Your task to perform on an android device: turn on improve location accuracy Image 0: 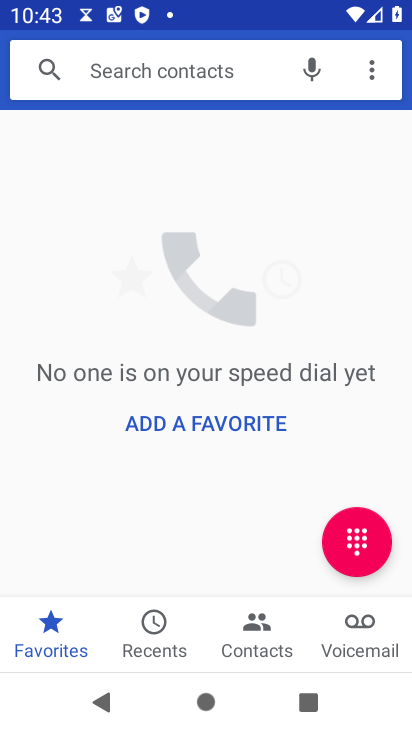
Step 0: press back button
Your task to perform on an android device: turn on improve location accuracy Image 1: 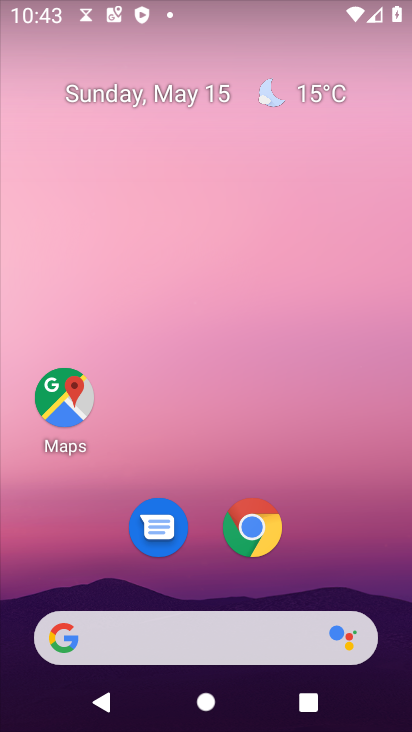
Step 1: drag from (328, 551) to (254, 55)
Your task to perform on an android device: turn on improve location accuracy Image 2: 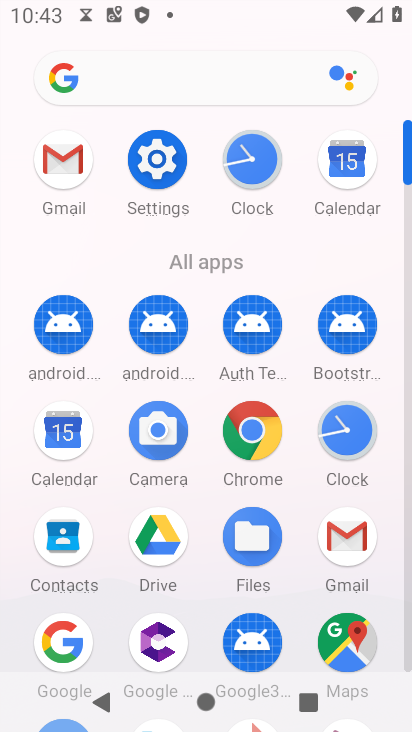
Step 2: click (159, 159)
Your task to perform on an android device: turn on improve location accuracy Image 3: 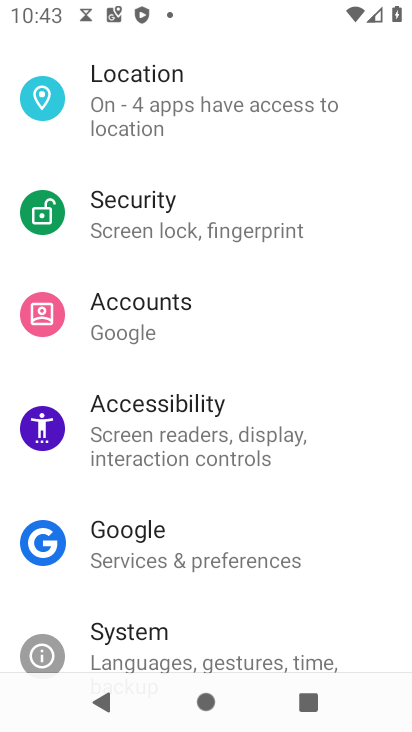
Step 3: drag from (230, 318) to (232, 461)
Your task to perform on an android device: turn on improve location accuracy Image 4: 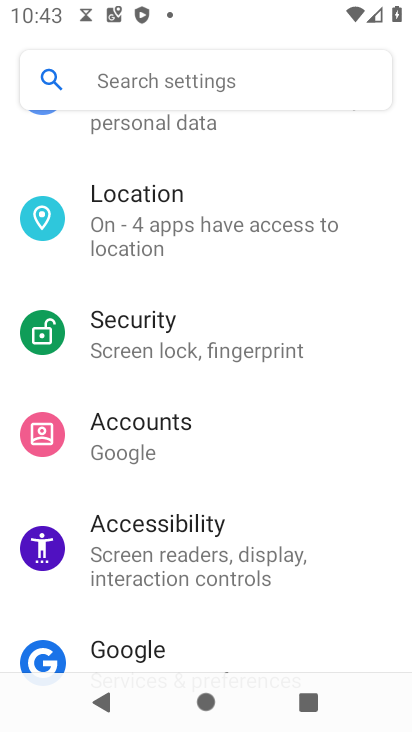
Step 4: click (201, 219)
Your task to perform on an android device: turn on improve location accuracy Image 5: 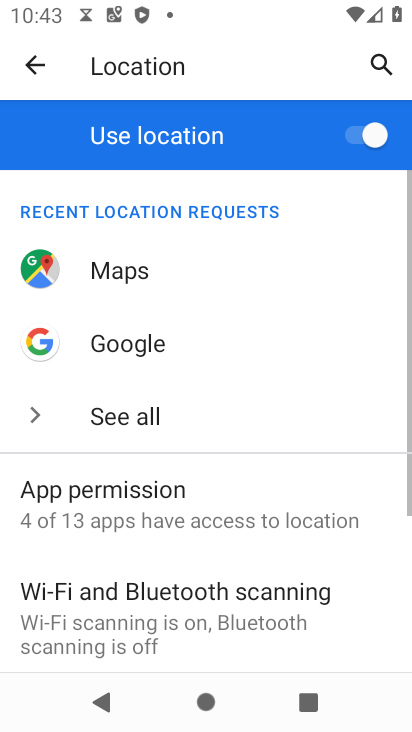
Step 5: drag from (201, 524) to (250, 360)
Your task to perform on an android device: turn on improve location accuracy Image 6: 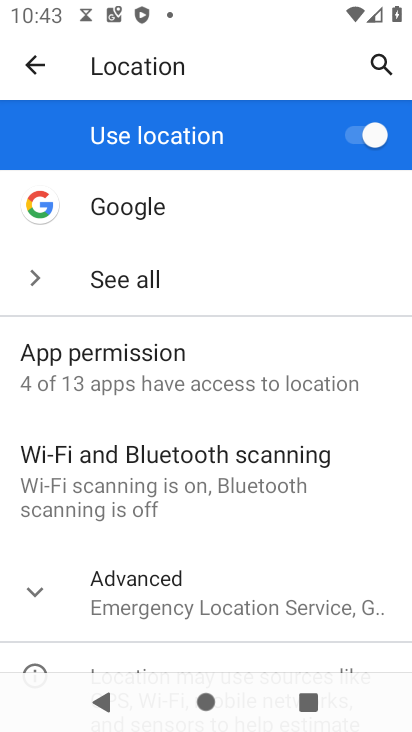
Step 6: click (191, 607)
Your task to perform on an android device: turn on improve location accuracy Image 7: 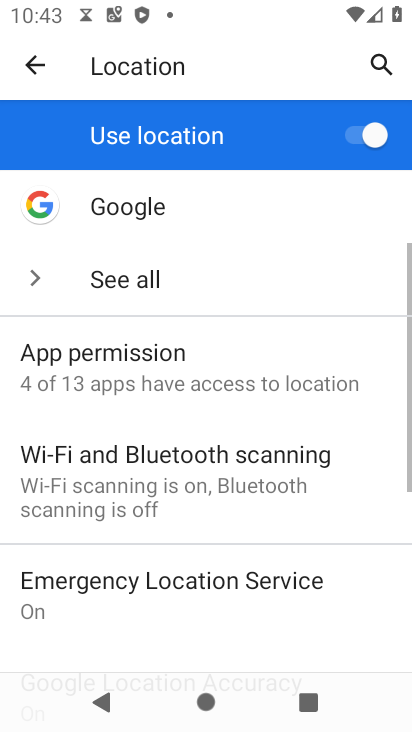
Step 7: drag from (191, 607) to (259, 358)
Your task to perform on an android device: turn on improve location accuracy Image 8: 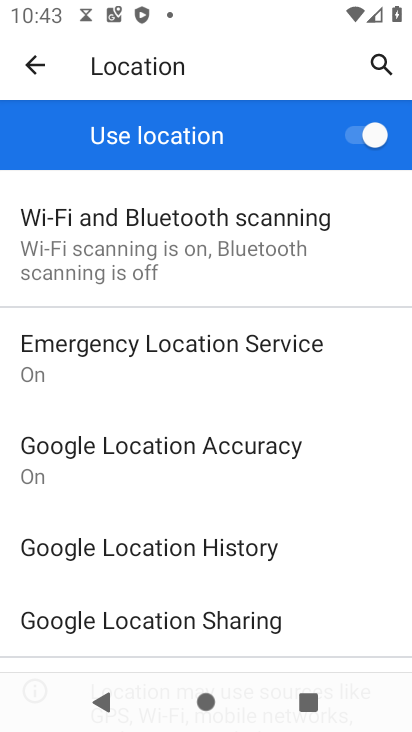
Step 8: click (230, 450)
Your task to perform on an android device: turn on improve location accuracy Image 9: 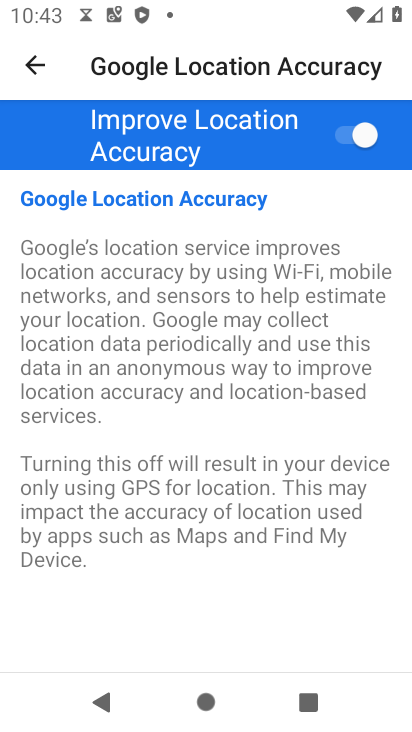
Step 9: task complete